Your task to perform on an android device: manage bookmarks in the chrome app Image 0: 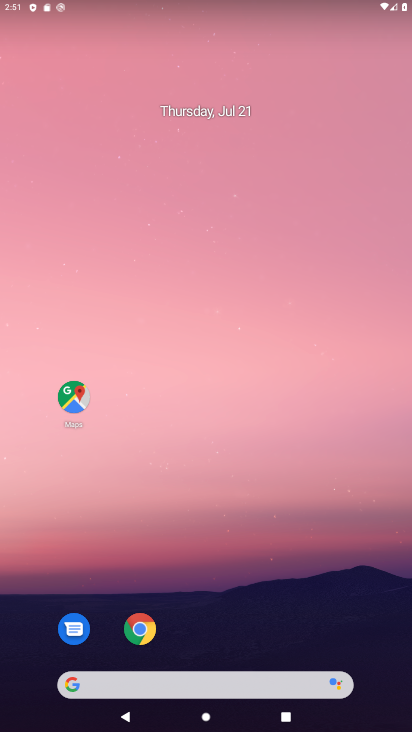
Step 0: drag from (215, 650) to (194, 116)
Your task to perform on an android device: manage bookmarks in the chrome app Image 1: 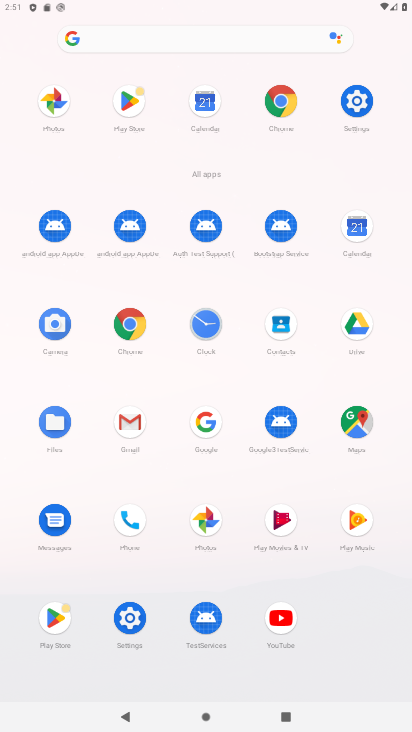
Step 1: click (119, 320)
Your task to perform on an android device: manage bookmarks in the chrome app Image 2: 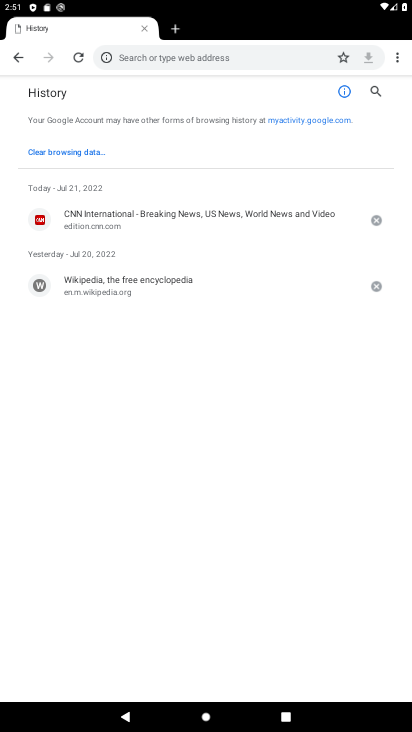
Step 2: click (395, 57)
Your task to perform on an android device: manage bookmarks in the chrome app Image 3: 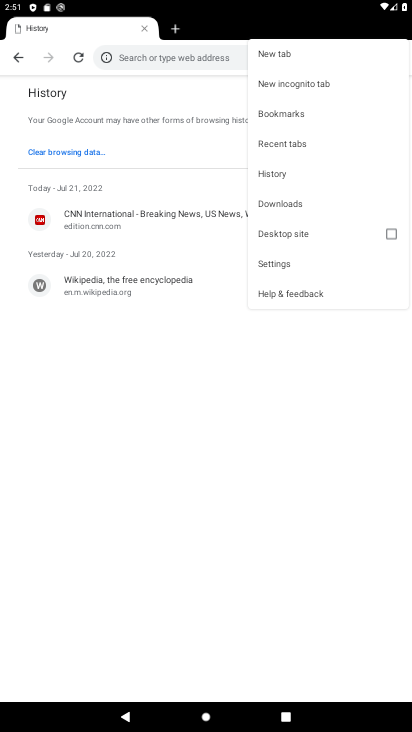
Step 3: click (277, 117)
Your task to perform on an android device: manage bookmarks in the chrome app Image 4: 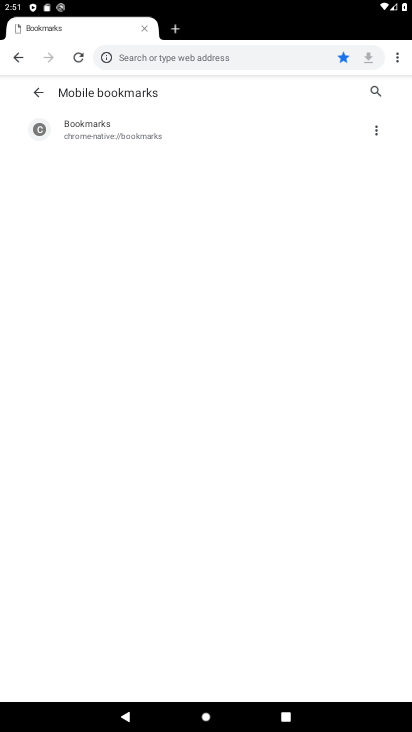
Step 4: click (99, 130)
Your task to perform on an android device: manage bookmarks in the chrome app Image 5: 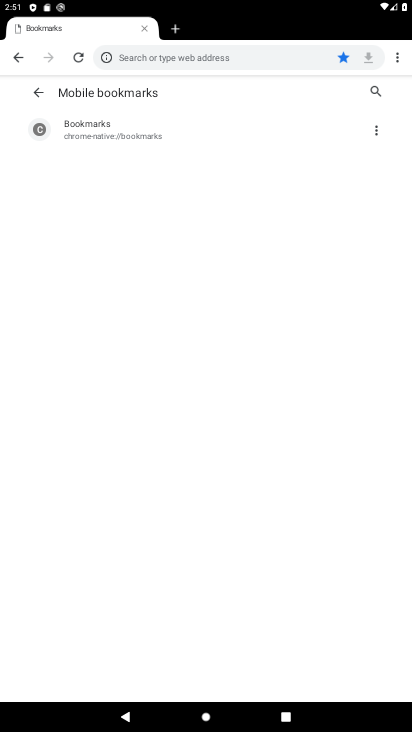
Step 5: click (373, 123)
Your task to perform on an android device: manage bookmarks in the chrome app Image 6: 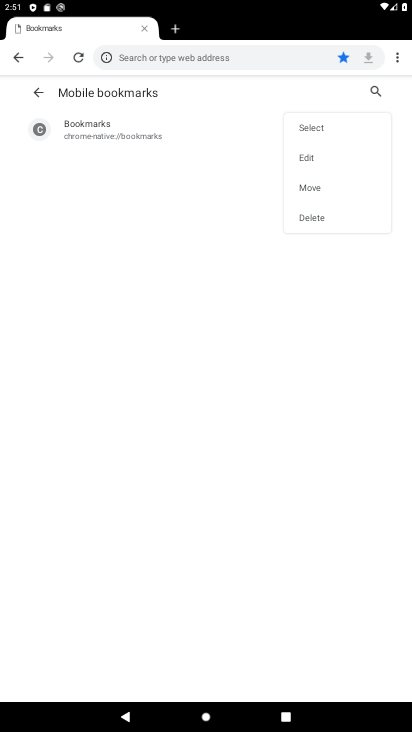
Step 6: click (316, 153)
Your task to perform on an android device: manage bookmarks in the chrome app Image 7: 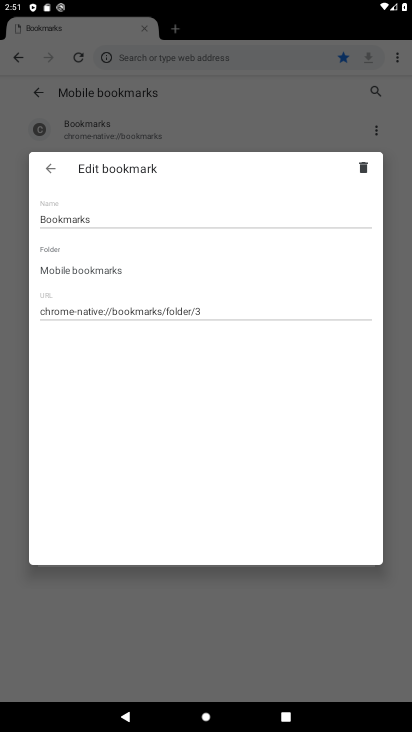
Step 7: click (77, 220)
Your task to perform on an android device: manage bookmarks in the chrome app Image 8: 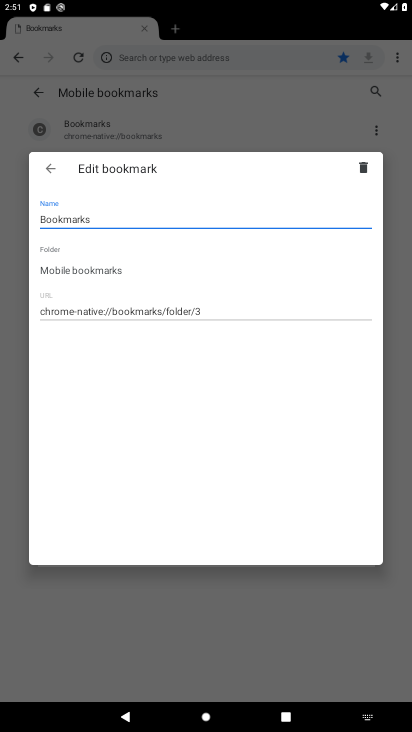
Step 8: type "werinda"
Your task to perform on an android device: manage bookmarks in the chrome app Image 9: 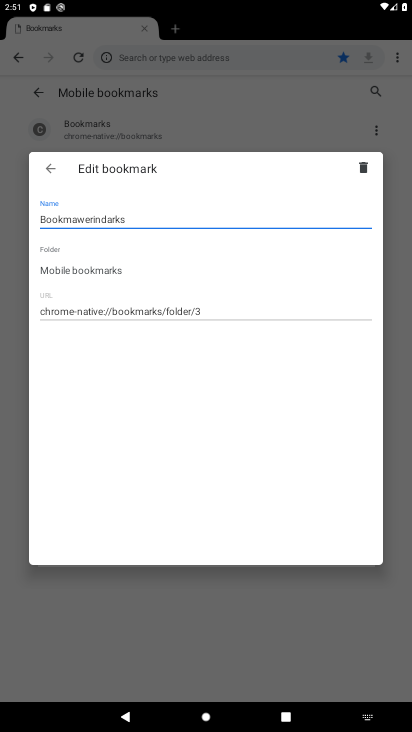
Step 9: click (47, 173)
Your task to perform on an android device: manage bookmarks in the chrome app Image 10: 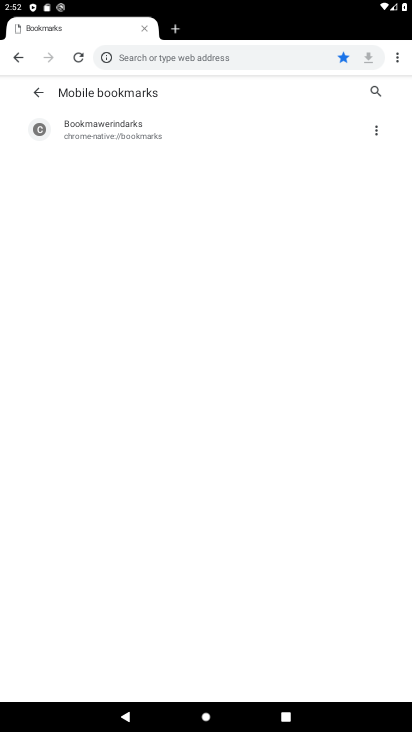
Step 10: task complete